Your task to perform on an android device: open app "Instagram" (install if not already installed) Image 0: 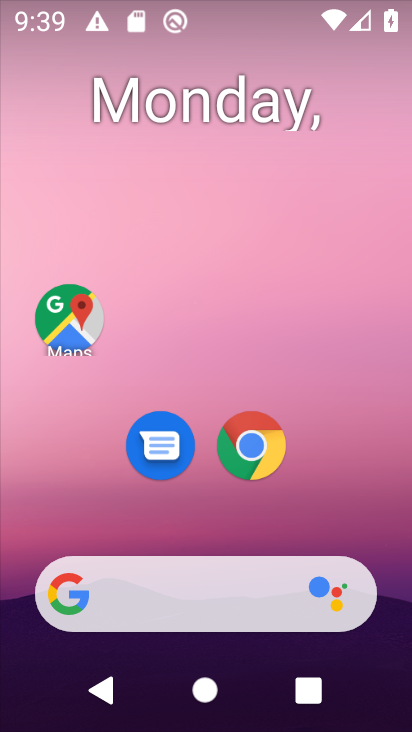
Step 0: drag from (400, 594) to (274, 98)
Your task to perform on an android device: open app "Instagram" (install if not already installed) Image 1: 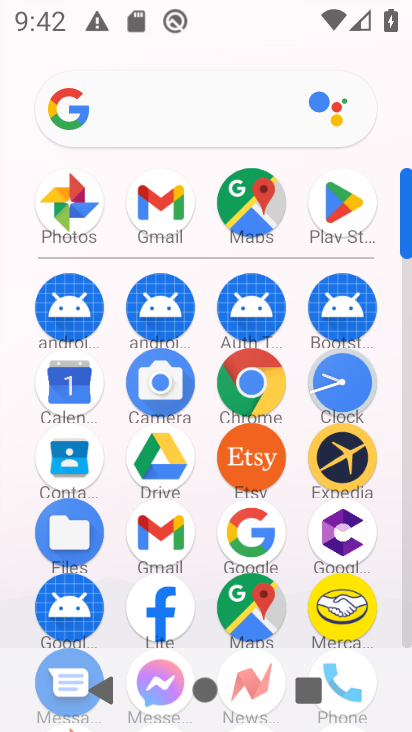
Step 1: click (352, 237)
Your task to perform on an android device: open app "Instagram" (install if not already installed) Image 2: 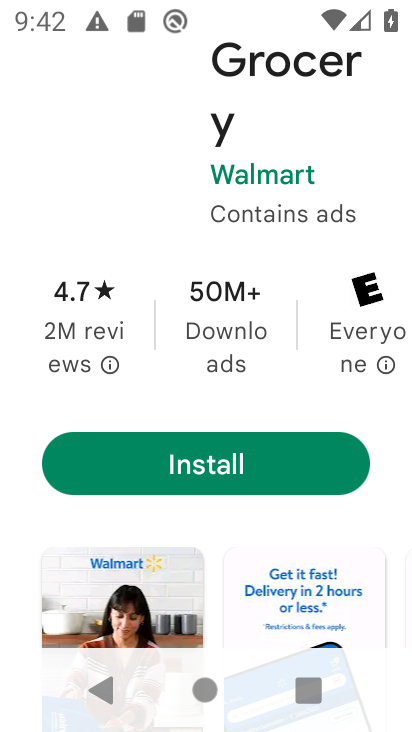
Step 2: press back button
Your task to perform on an android device: open app "Instagram" (install if not already installed) Image 3: 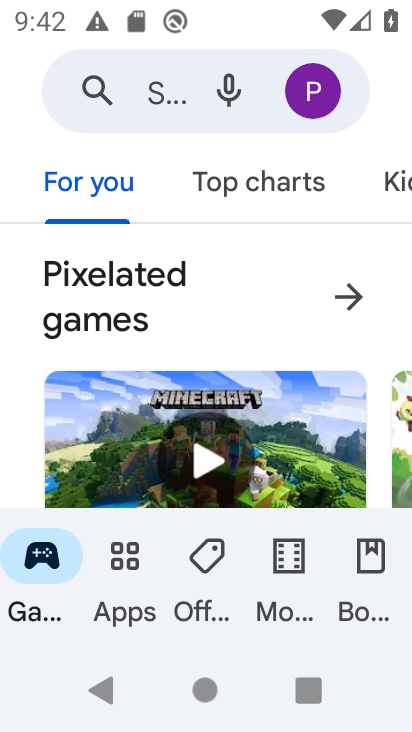
Step 3: click (147, 90)
Your task to perform on an android device: open app "Instagram" (install if not already installed) Image 4: 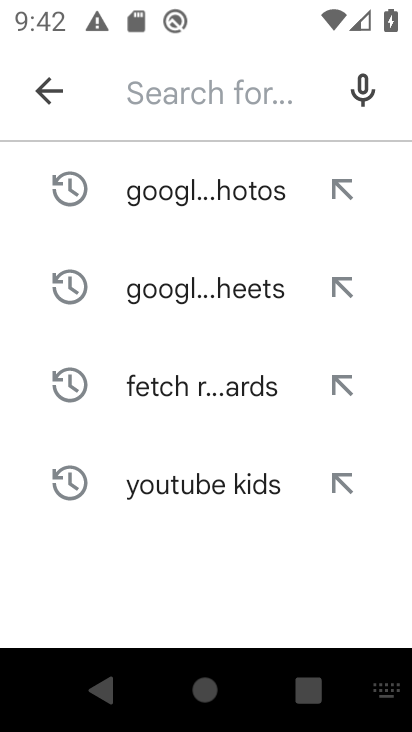
Step 4: type "Instagram"
Your task to perform on an android device: open app "Instagram" (install if not already installed) Image 5: 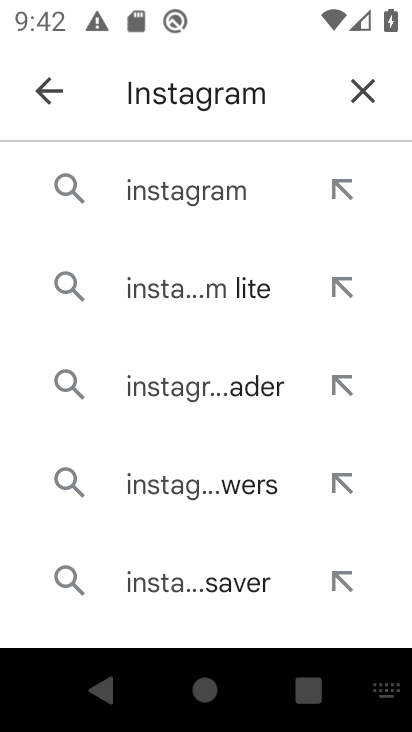
Step 5: click (208, 181)
Your task to perform on an android device: open app "Instagram" (install if not already installed) Image 6: 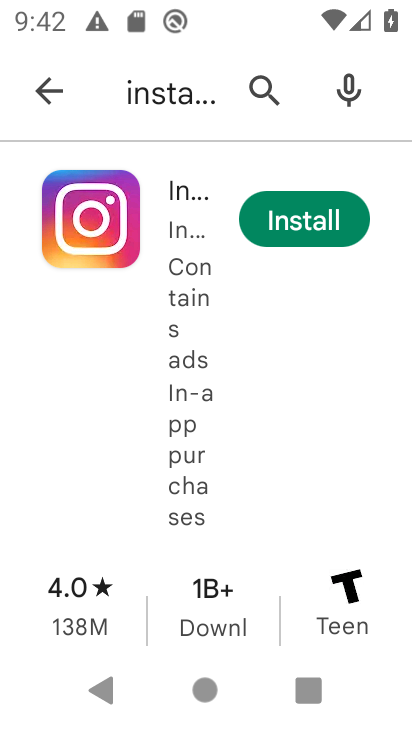
Step 6: task complete